Your task to perform on an android device: Go to CNN.com Image 0: 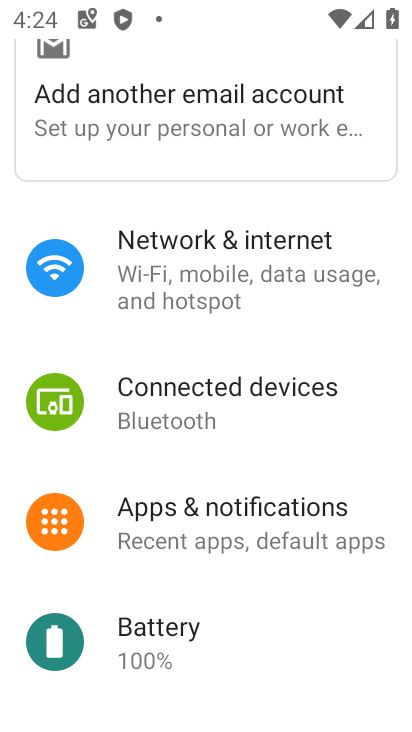
Step 0: press home button
Your task to perform on an android device: Go to CNN.com Image 1: 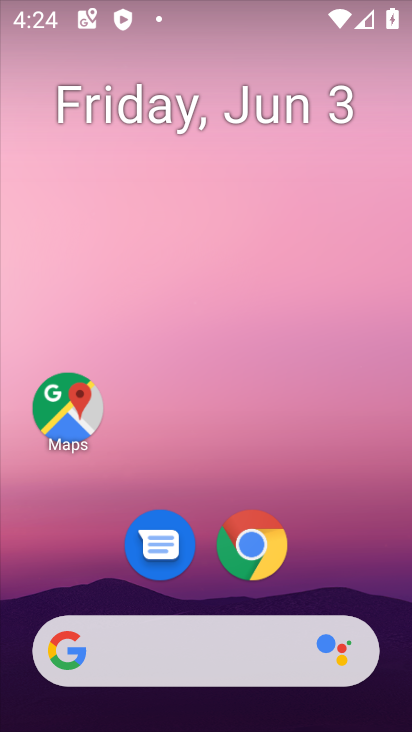
Step 1: click (205, 650)
Your task to perform on an android device: Go to CNN.com Image 2: 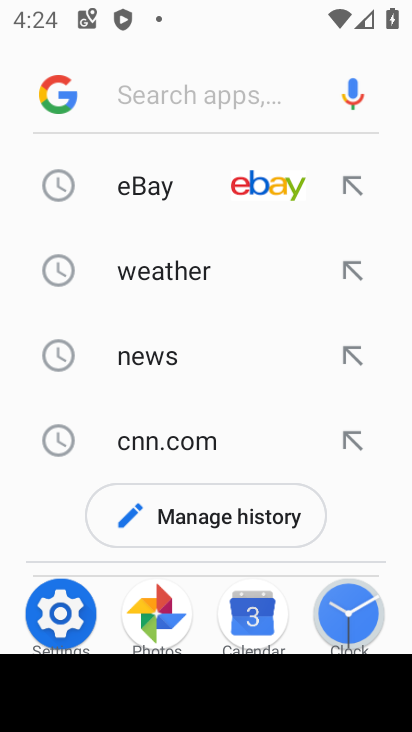
Step 2: type "CNN.com"
Your task to perform on an android device: Go to CNN.com Image 3: 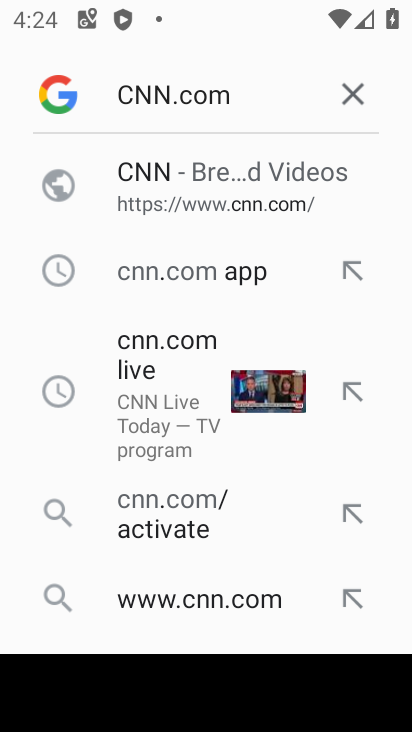
Step 3: click (269, 182)
Your task to perform on an android device: Go to CNN.com Image 4: 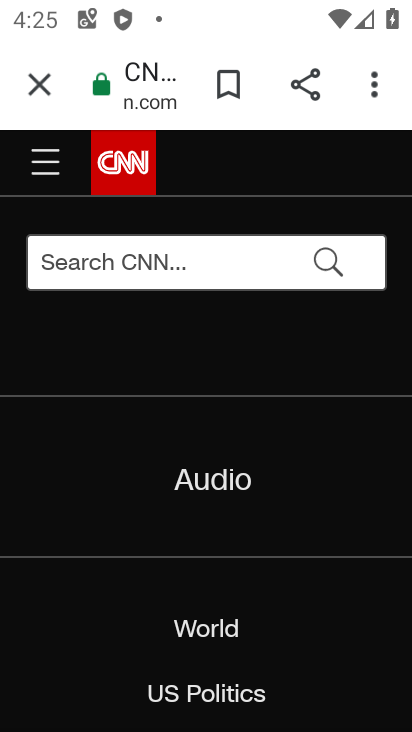
Step 4: task complete